Your task to perform on an android device: Look up the best rated gaming chair on Best Buy Image 0: 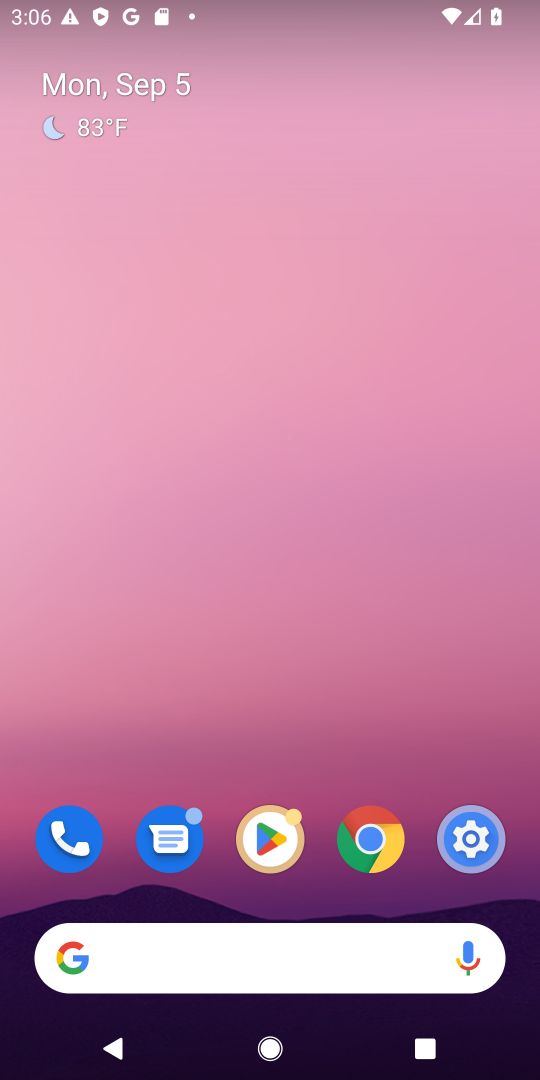
Step 0: click (237, 939)
Your task to perform on an android device: Look up the best rated gaming chair on Best Buy Image 1: 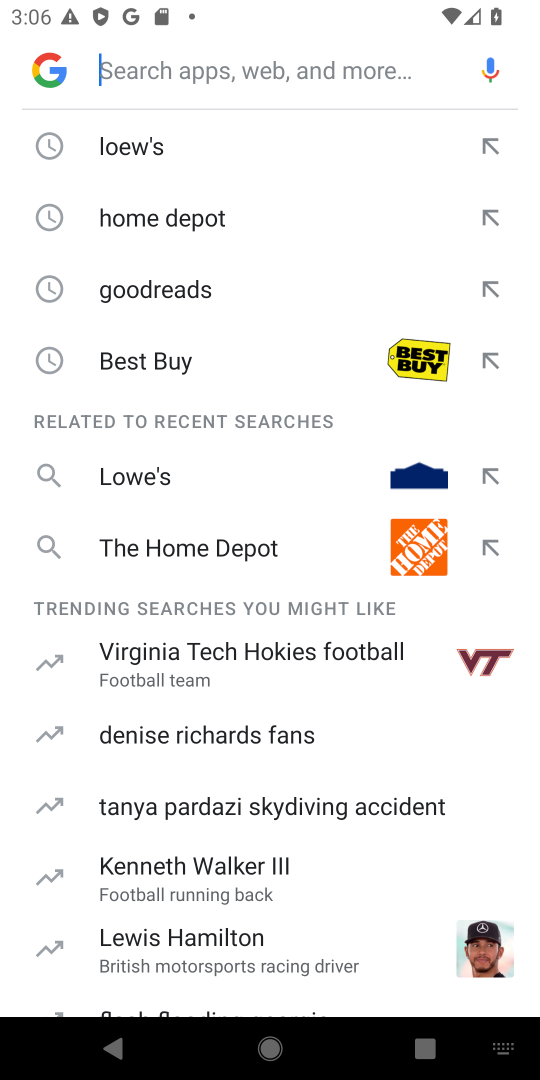
Step 1: click (157, 366)
Your task to perform on an android device: Look up the best rated gaming chair on Best Buy Image 2: 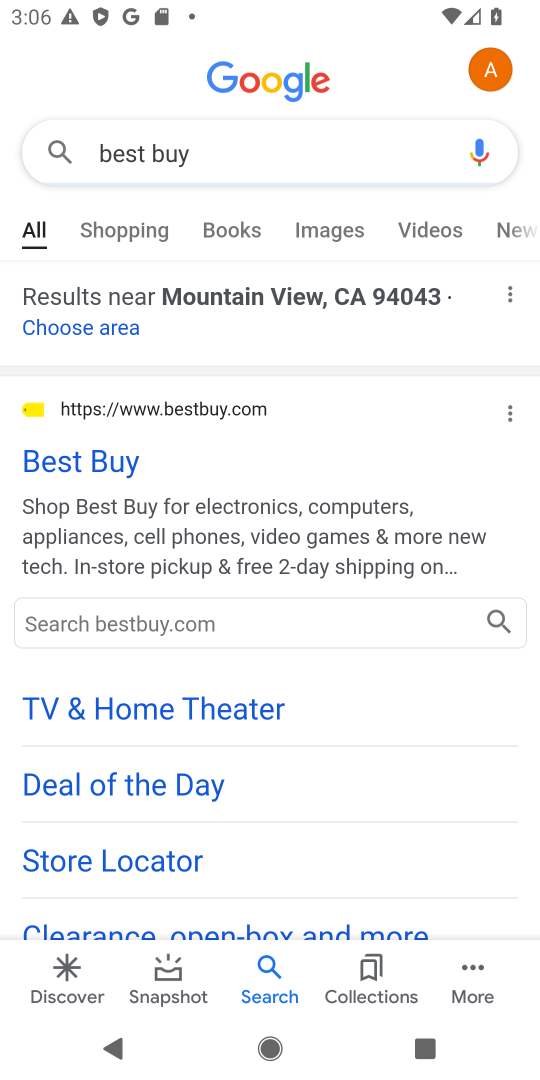
Step 2: click (93, 450)
Your task to perform on an android device: Look up the best rated gaming chair on Best Buy Image 3: 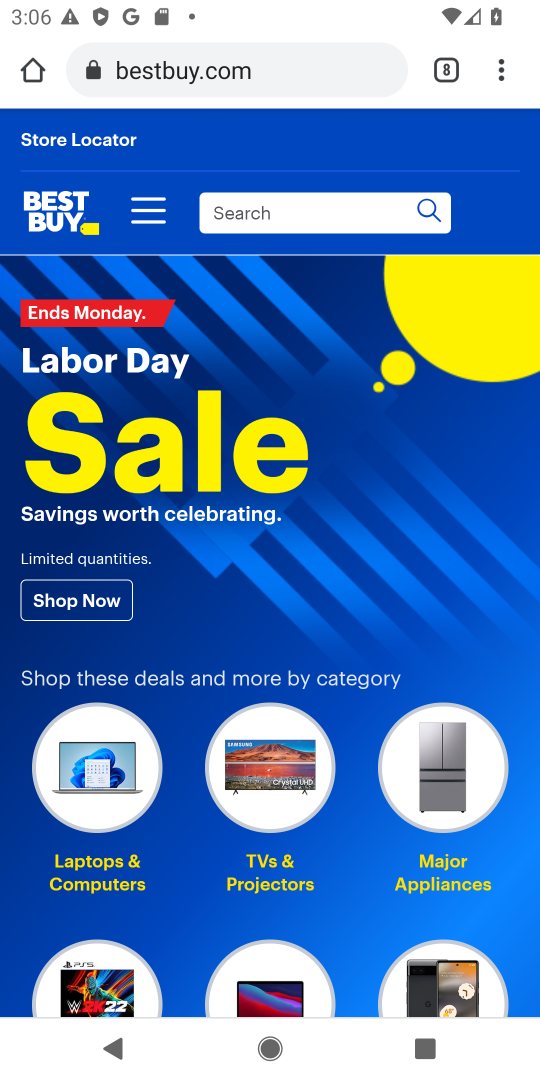
Step 3: click (264, 215)
Your task to perform on an android device: Look up the best rated gaming chair on Best Buy Image 4: 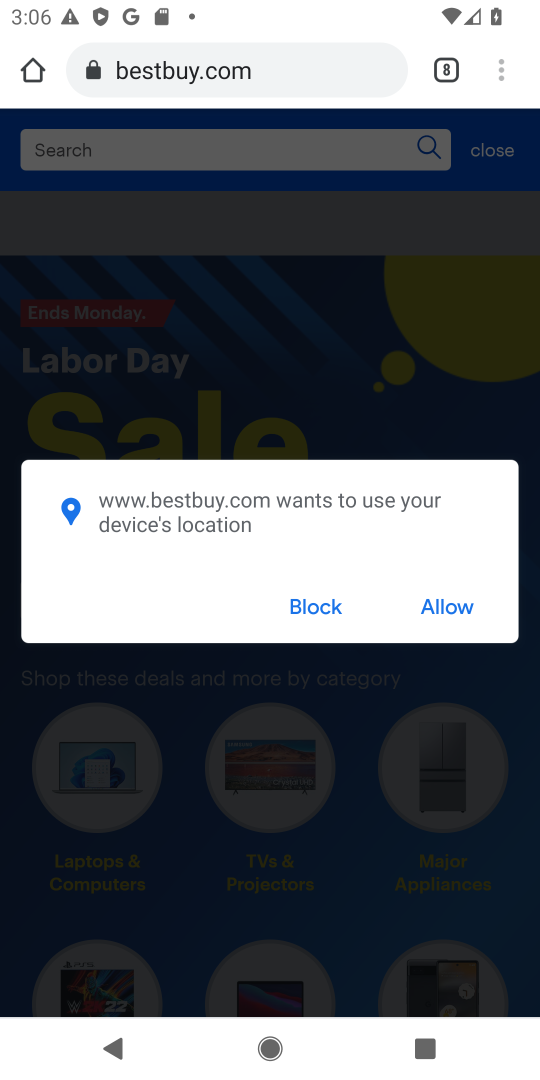
Step 4: click (300, 607)
Your task to perform on an android device: Look up the best rated gaming chair on Best Buy Image 5: 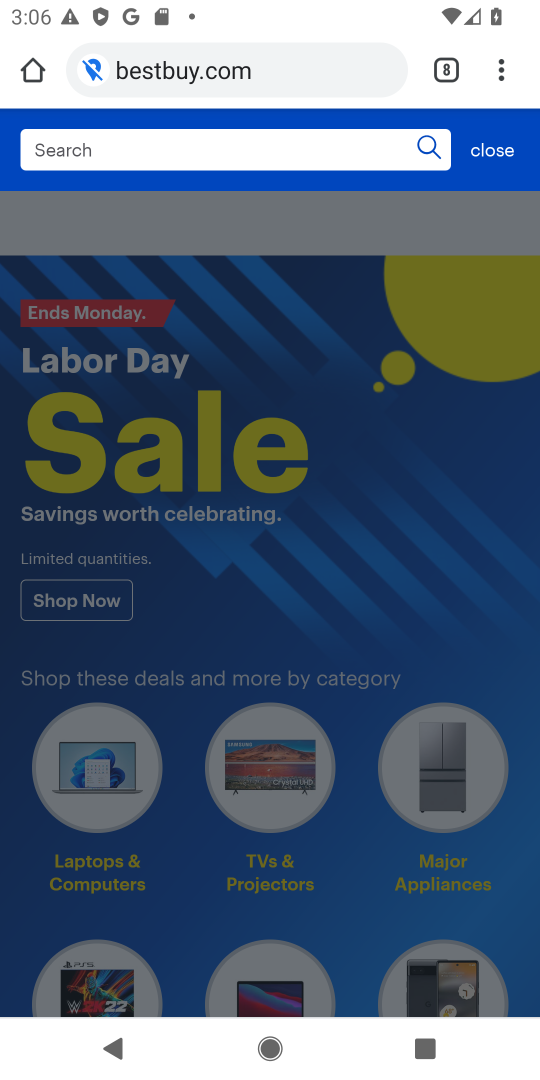
Step 5: click (238, 140)
Your task to perform on an android device: Look up the best rated gaming chair on Best Buy Image 6: 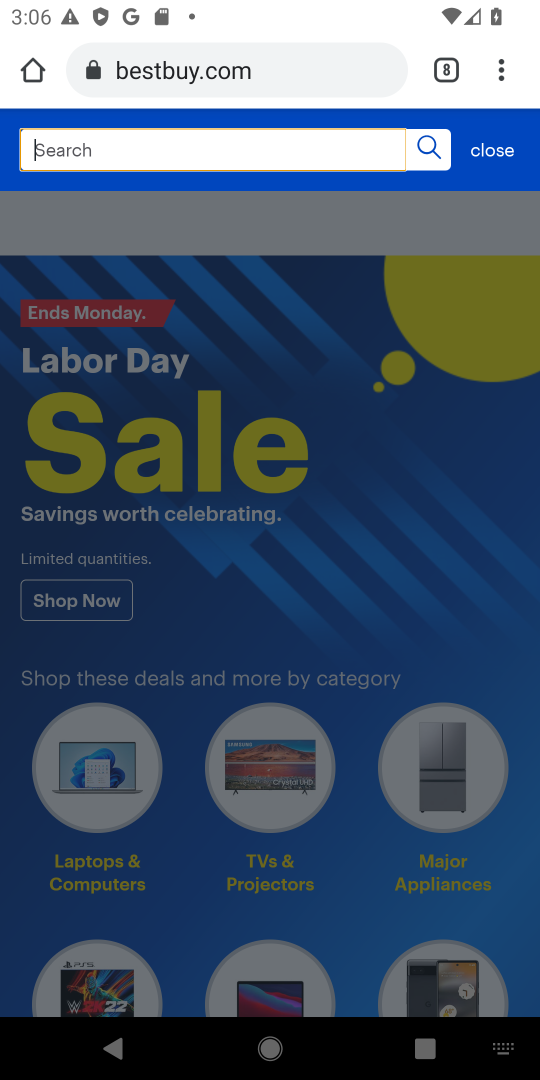
Step 6: type "gaming chair"
Your task to perform on an android device: Look up the best rated gaming chair on Best Buy Image 7: 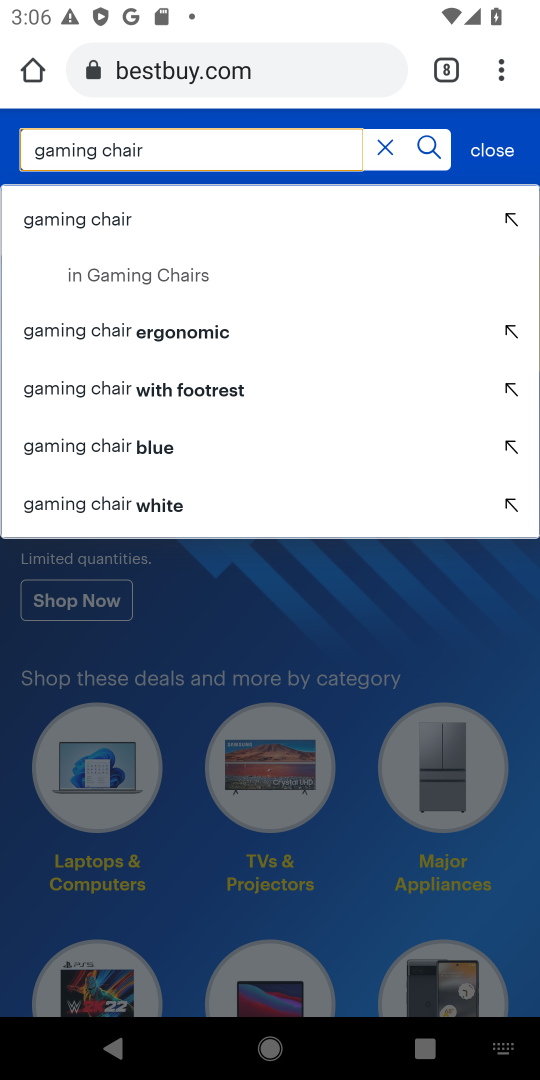
Step 7: press enter
Your task to perform on an android device: Look up the best rated gaming chair on Best Buy Image 8: 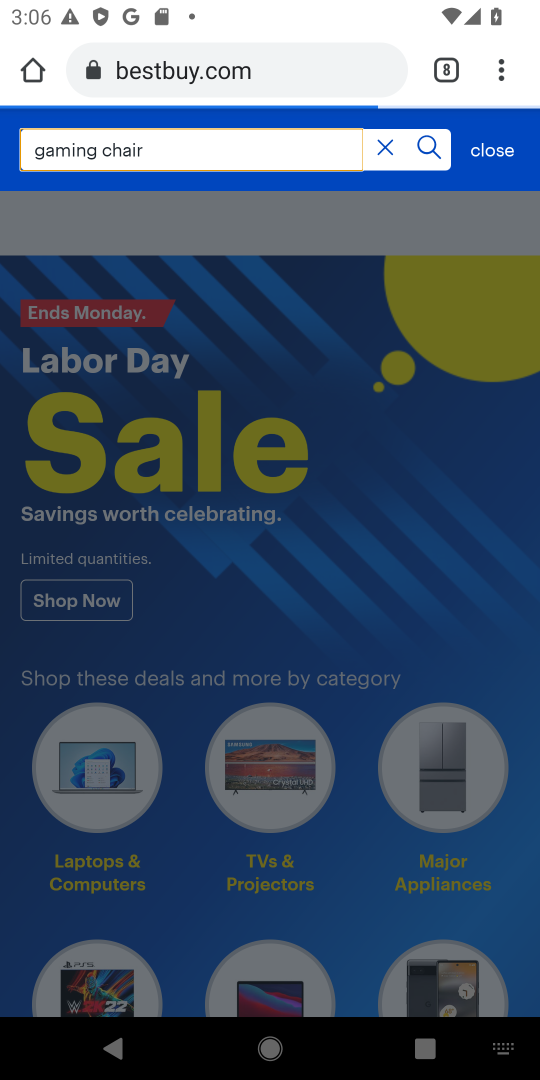
Step 8: press enter
Your task to perform on an android device: Look up the best rated gaming chair on Best Buy Image 9: 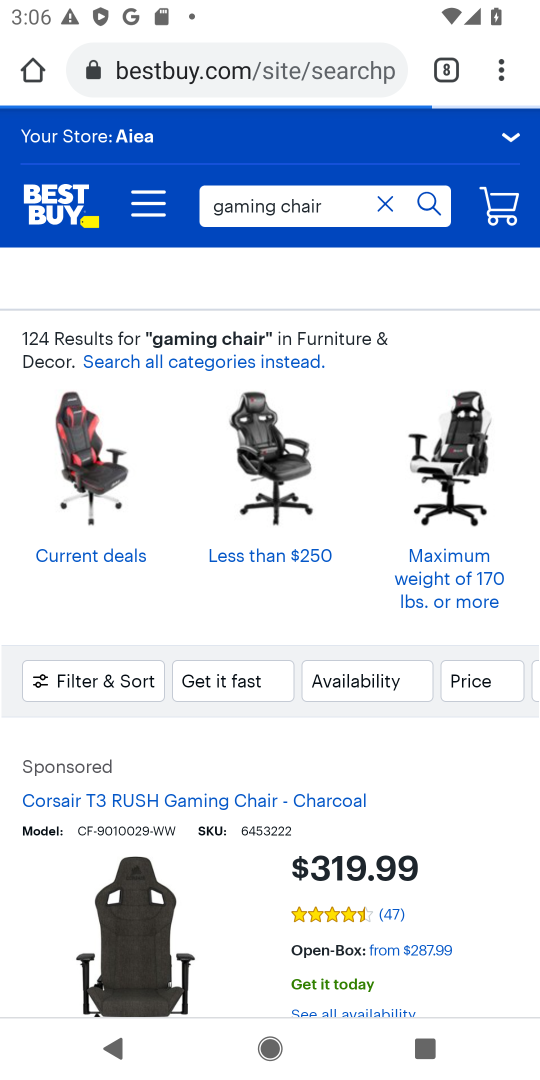
Step 9: click (85, 673)
Your task to perform on an android device: Look up the best rated gaming chair on Best Buy Image 10: 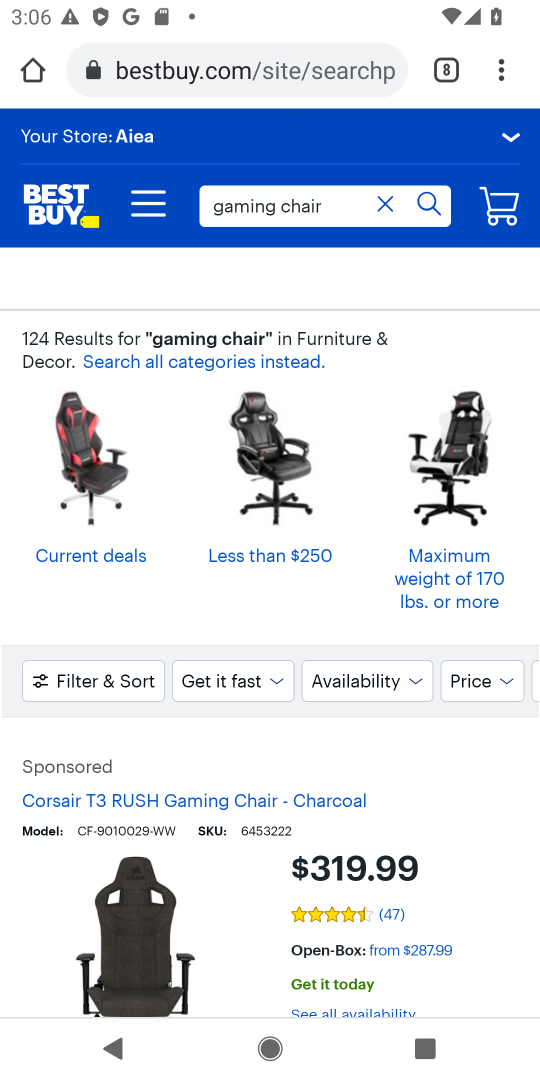
Step 10: click (87, 675)
Your task to perform on an android device: Look up the best rated gaming chair on Best Buy Image 11: 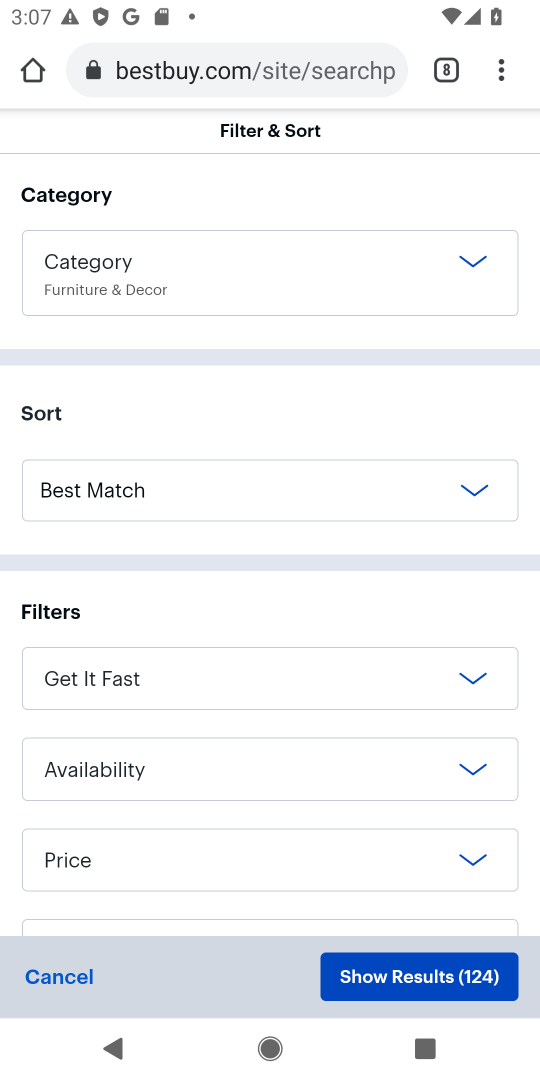
Step 11: drag from (4, 691) to (427, 14)
Your task to perform on an android device: Look up the best rated gaming chair on Best Buy Image 12: 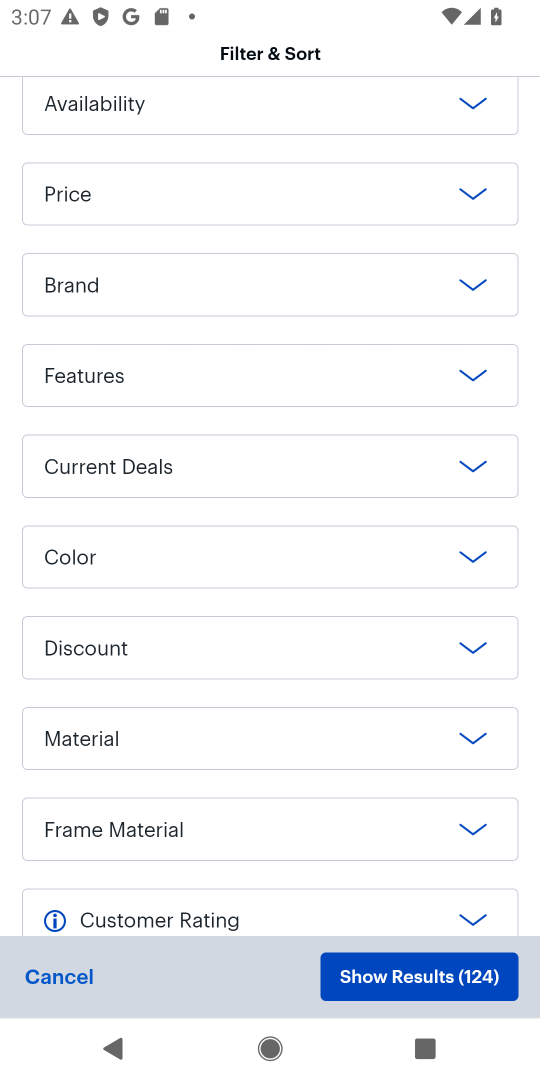
Step 12: drag from (15, 691) to (201, 228)
Your task to perform on an android device: Look up the best rated gaming chair on Best Buy Image 13: 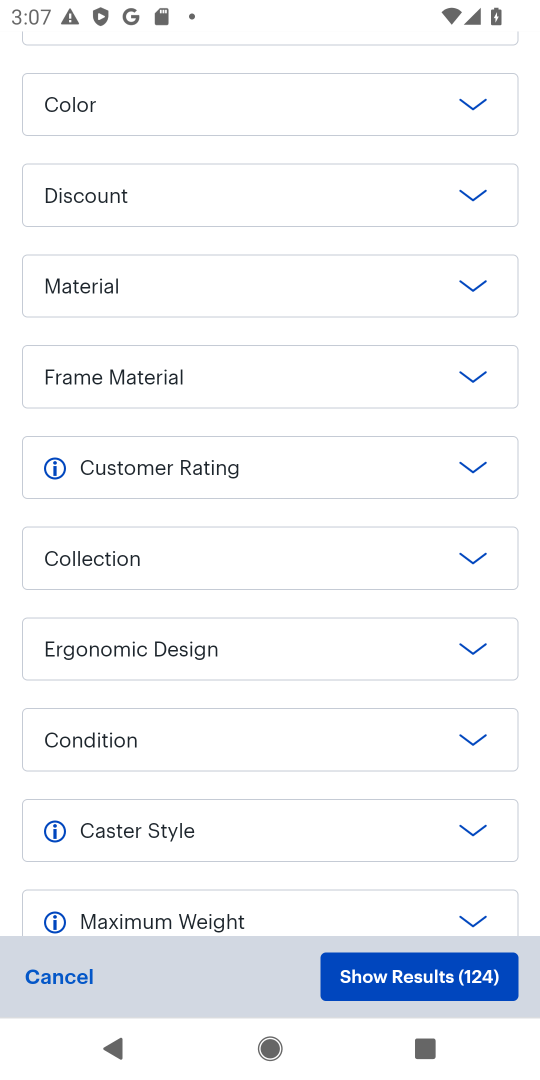
Step 13: click (471, 460)
Your task to perform on an android device: Look up the best rated gaming chair on Best Buy Image 14: 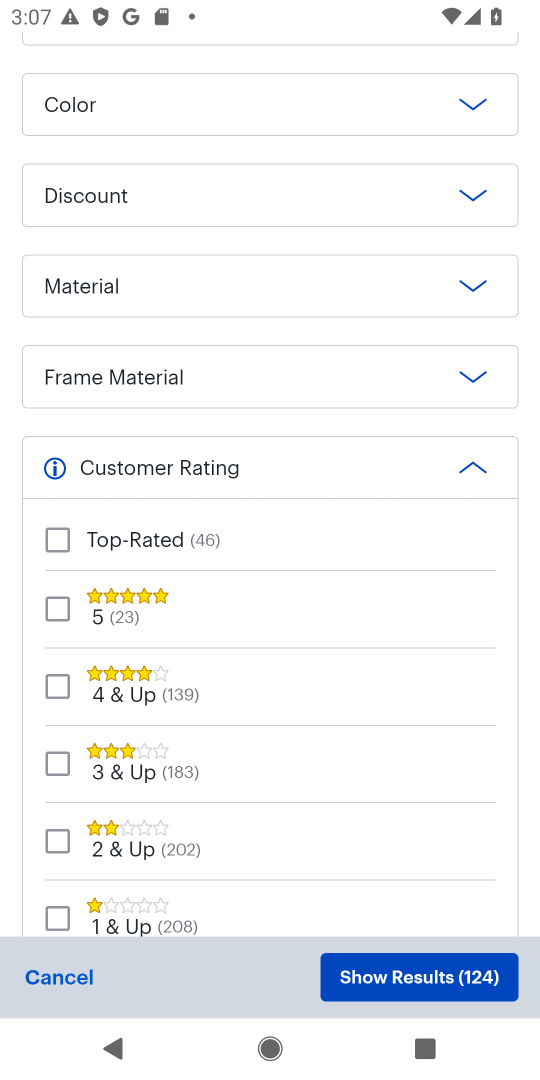
Step 14: click (61, 527)
Your task to perform on an android device: Look up the best rated gaming chair on Best Buy Image 15: 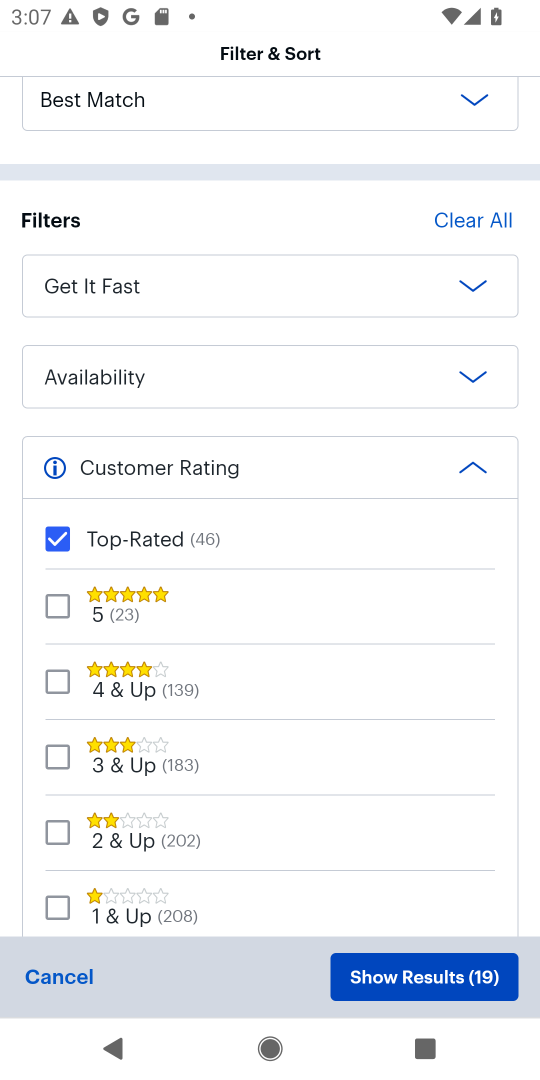
Step 15: click (415, 982)
Your task to perform on an android device: Look up the best rated gaming chair on Best Buy Image 16: 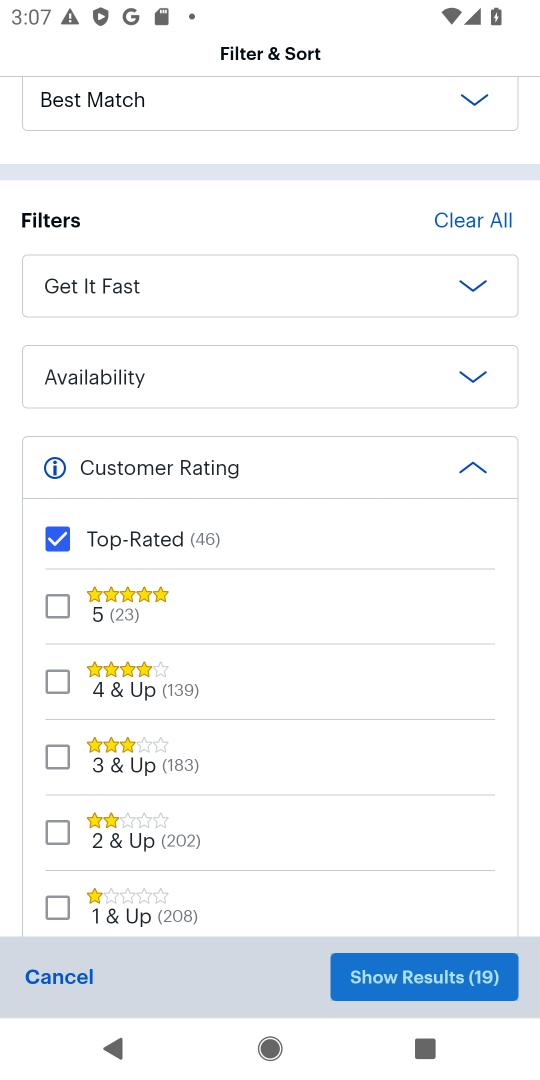
Step 16: click (415, 980)
Your task to perform on an android device: Look up the best rated gaming chair on Best Buy Image 17: 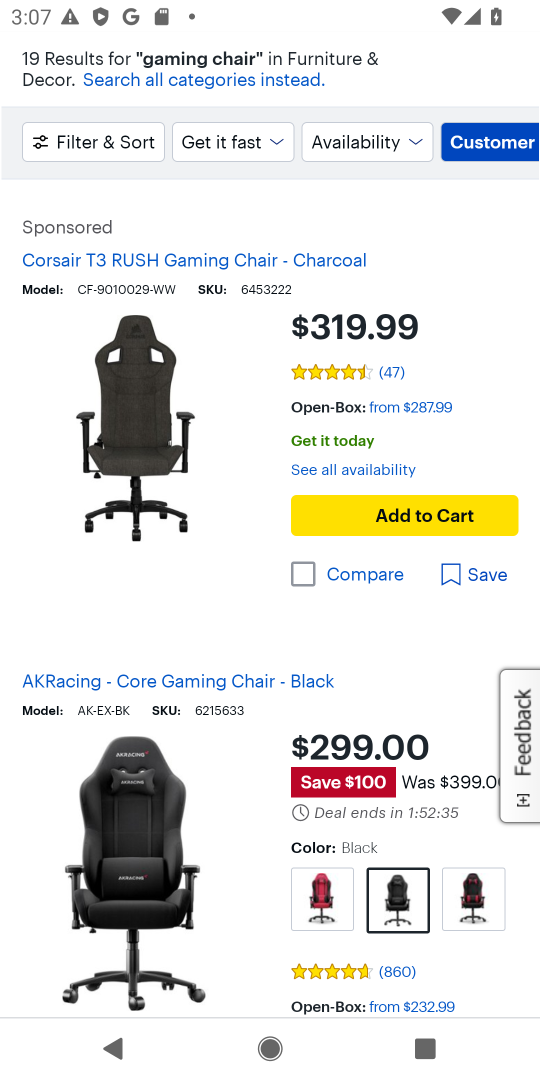
Step 17: drag from (281, 620) to (309, 213)
Your task to perform on an android device: Look up the best rated gaming chair on Best Buy Image 18: 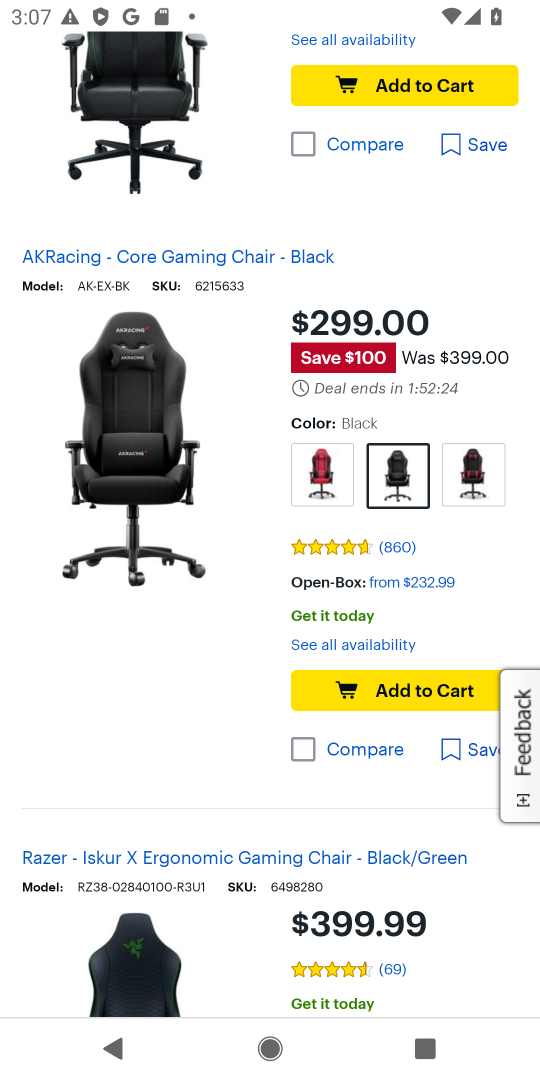
Step 18: drag from (423, 264) to (519, 101)
Your task to perform on an android device: Look up the best rated gaming chair on Best Buy Image 19: 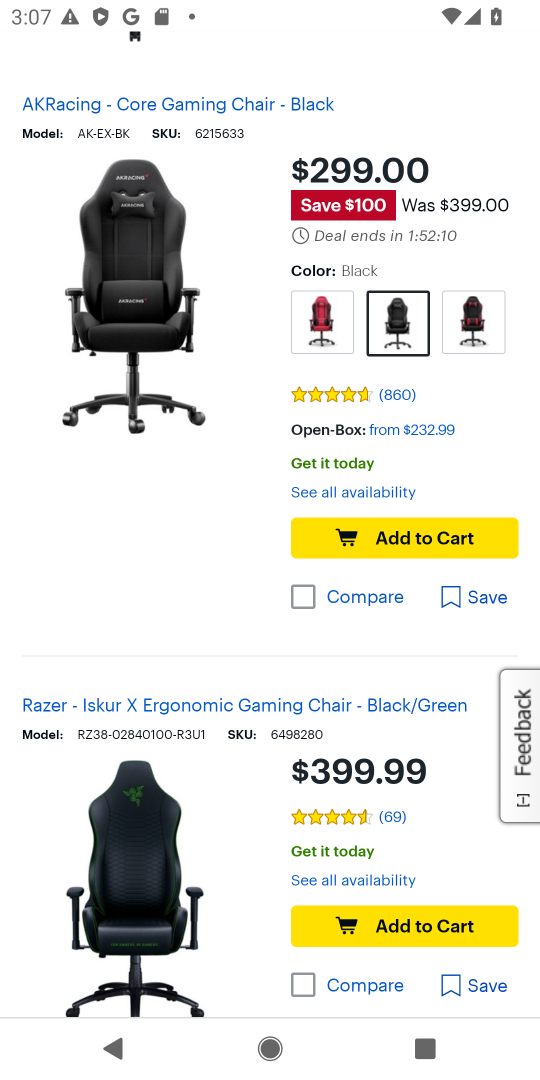
Step 19: drag from (349, 671) to (538, 150)
Your task to perform on an android device: Look up the best rated gaming chair on Best Buy Image 20: 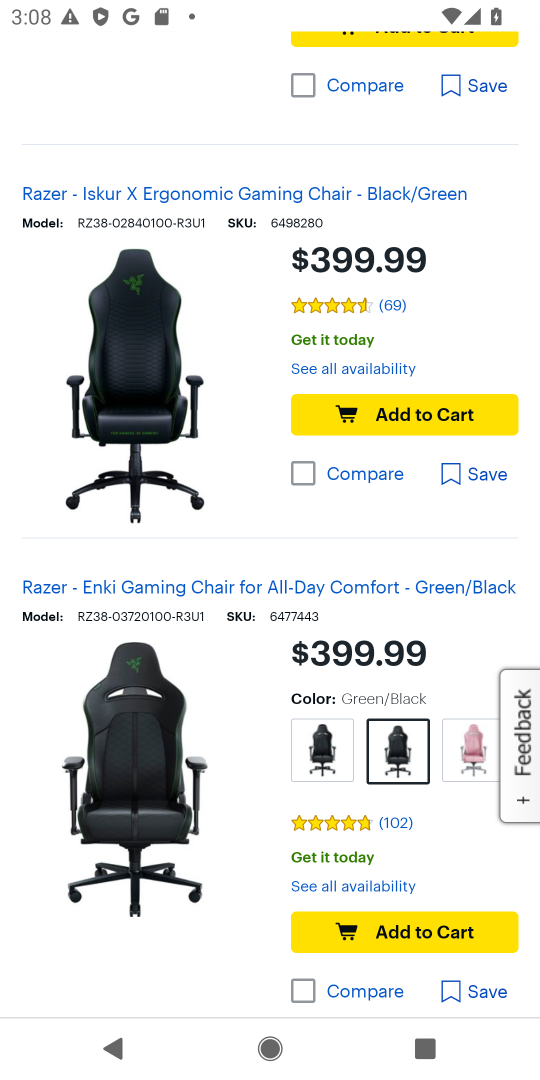
Step 20: drag from (516, 279) to (457, 128)
Your task to perform on an android device: Look up the best rated gaming chair on Best Buy Image 21: 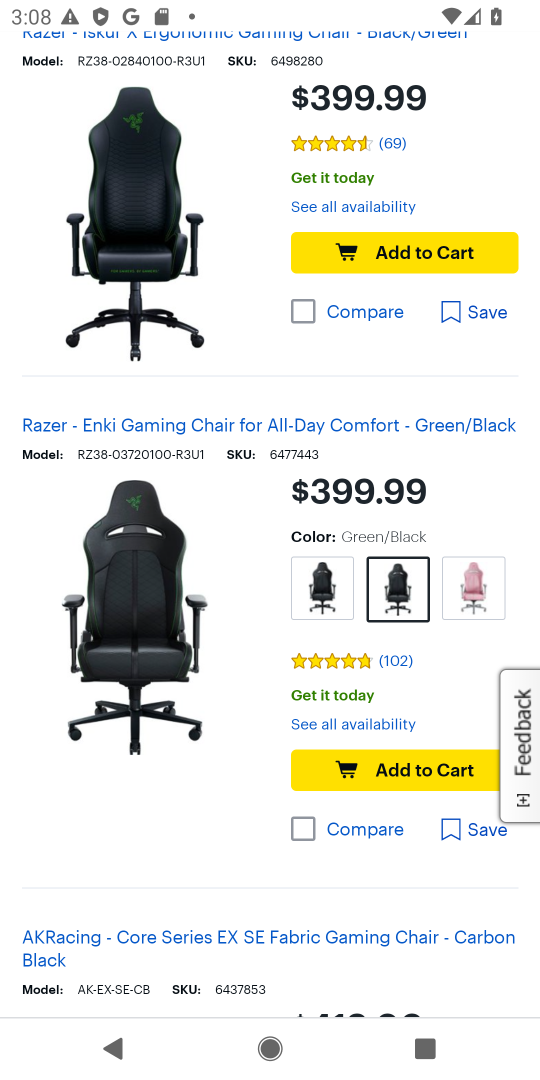
Step 21: drag from (71, 912) to (89, 827)
Your task to perform on an android device: Look up the best rated gaming chair on Best Buy Image 22: 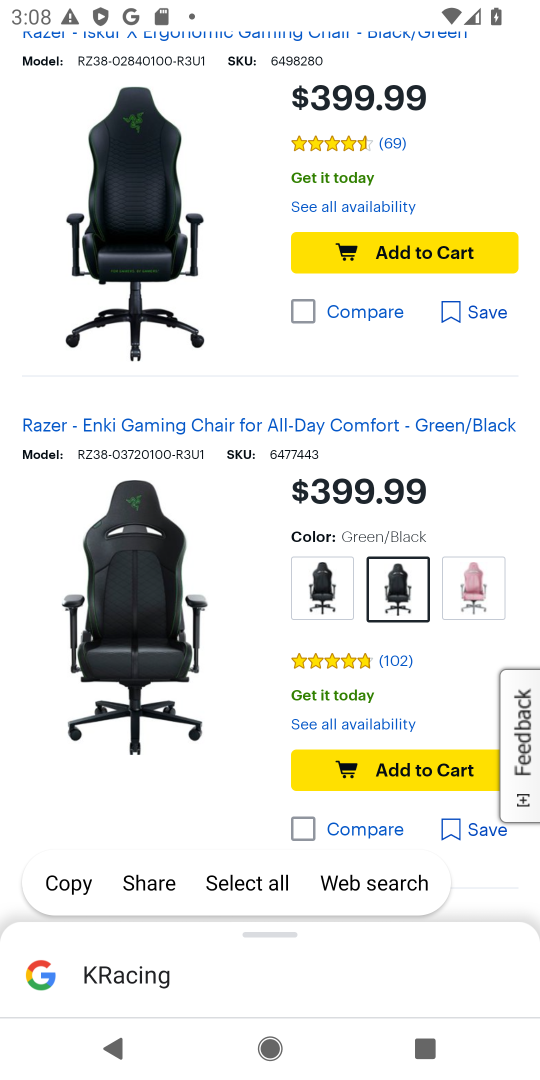
Step 22: click (14, 875)
Your task to perform on an android device: Look up the best rated gaming chair on Best Buy Image 23: 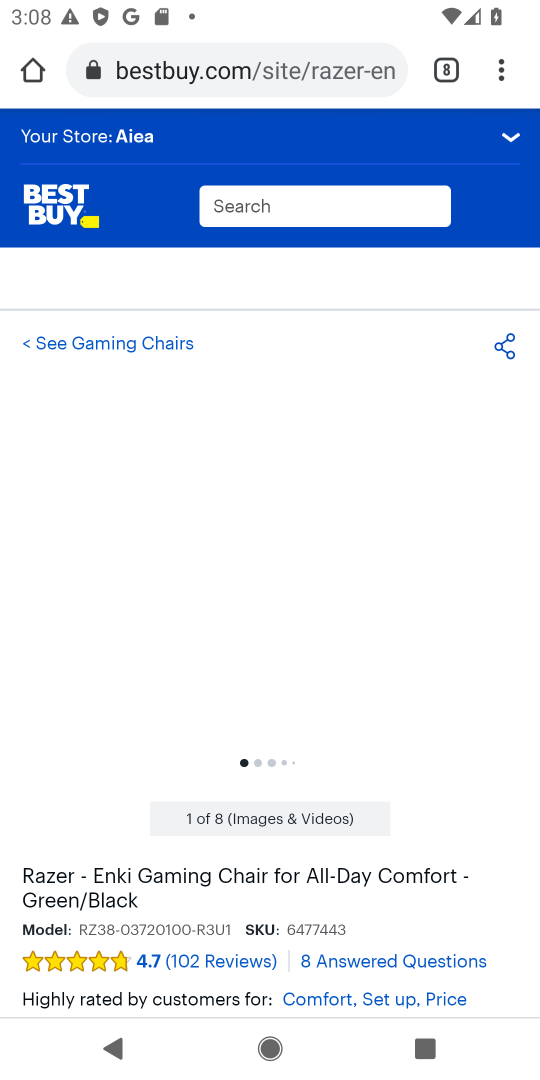
Step 23: drag from (52, 312) to (94, 146)
Your task to perform on an android device: Look up the best rated gaming chair on Best Buy Image 24: 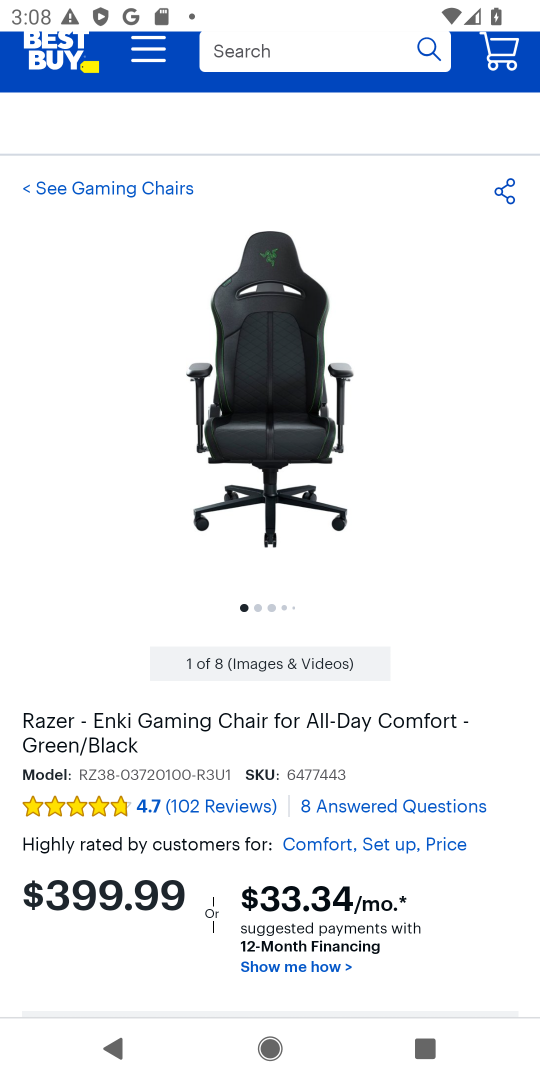
Step 24: drag from (13, 808) to (141, 336)
Your task to perform on an android device: Look up the best rated gaming chair on Best Buy Image 25: 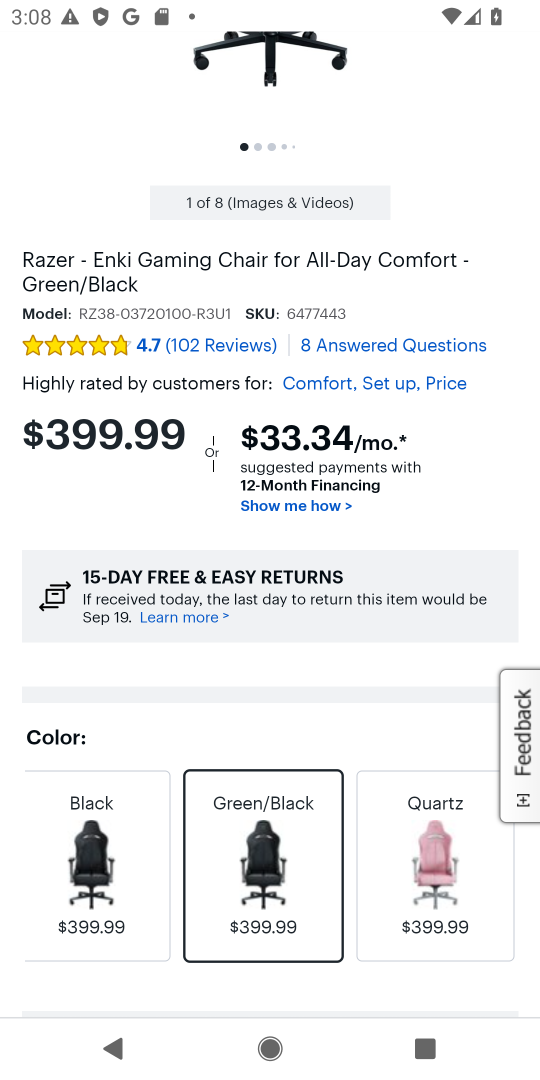
Step 25: drag from (352, 665) to (462, 127)
Your task to perform on an android device: Look up the best rated gaming chair on Best Buy Image 26: 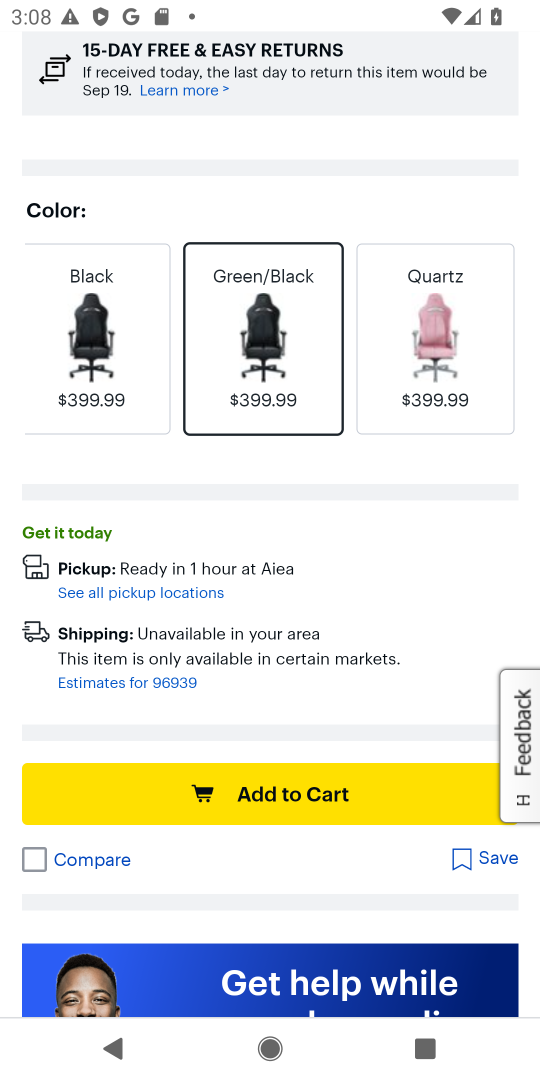
Step 26: click (443, 189)
Your task to perform on an android device: Look up the best rated gaming chair on Best Buy Image 27: 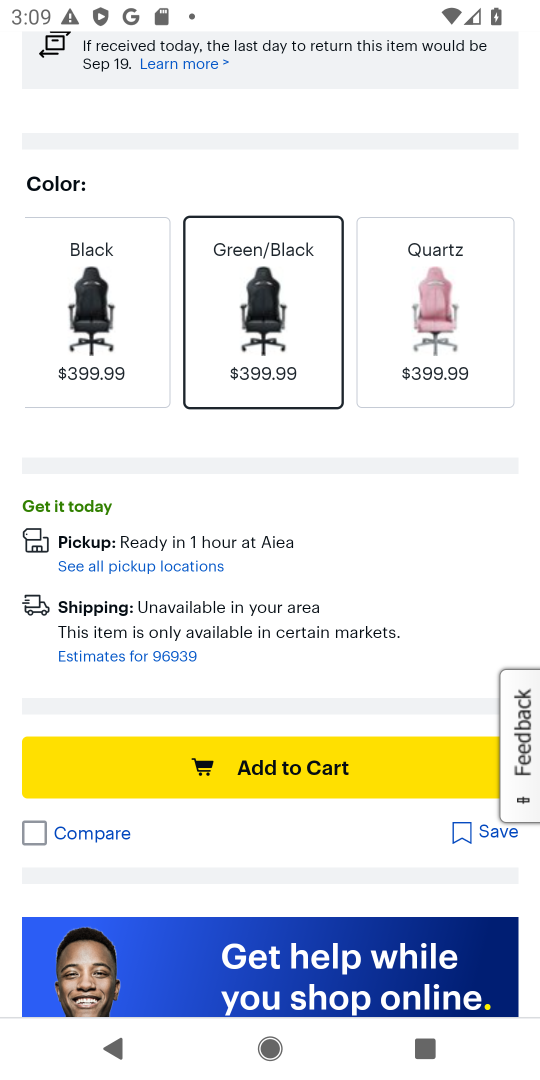
Step 27: task complete